Your task to perform on an android device: Search for Mexican restaurants on Maps Image 0: 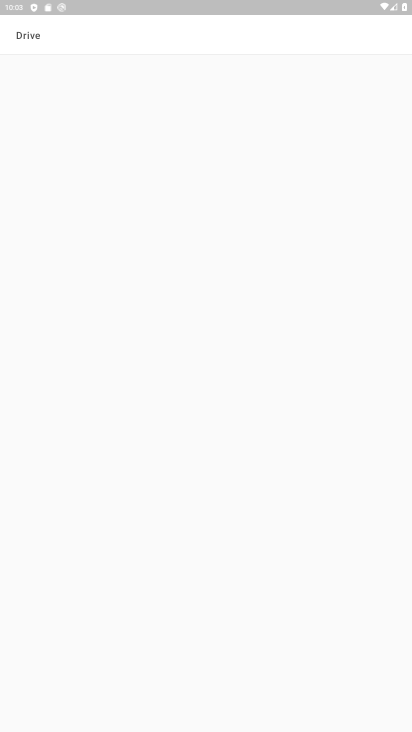
Step 0: press home button
Your task to perform on an android device: Search for Mexican restaurants on Maps Image 1: 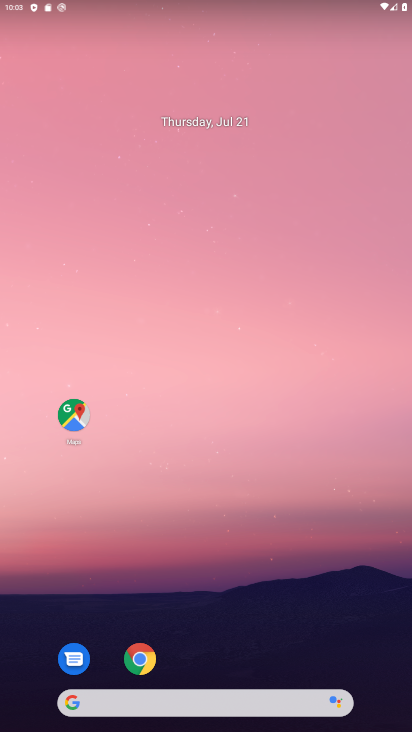
Step 1: drag from (284, 622) to (233, 99)
Your task to perform on an android device: Search for Mexican restaurants on Maps Image 2: 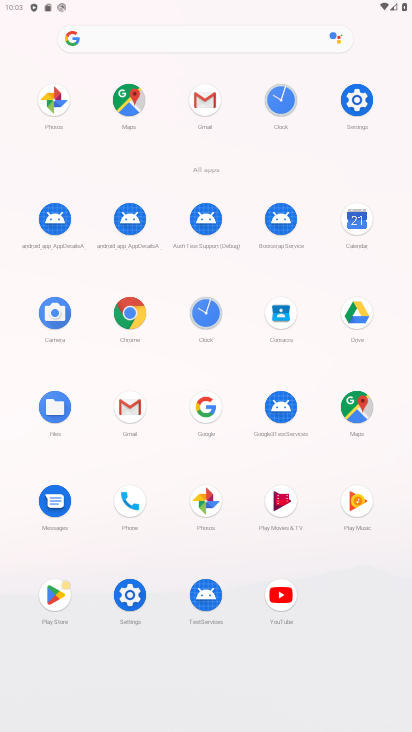
Step 2: click (350, 411)
Your task to perform on an android device: Search for Mexican restaurants on Maps Image 3: 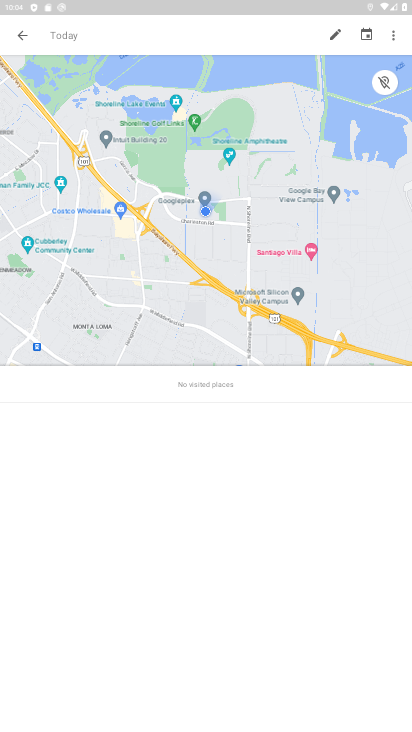
Step 3: click (53, 35)
Your task to perform on an android device: Search for Mexican restaurants on Maps Image 4: 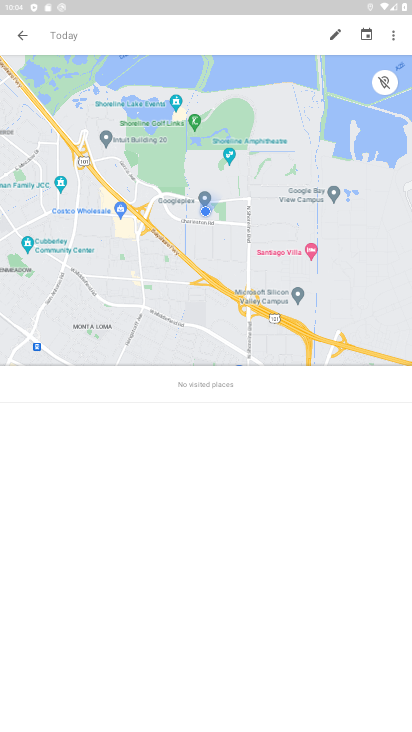
Step 4: click (26, 30)
Your task to perform on an android device: Search for Mexican restaurants on Maps Image 5: 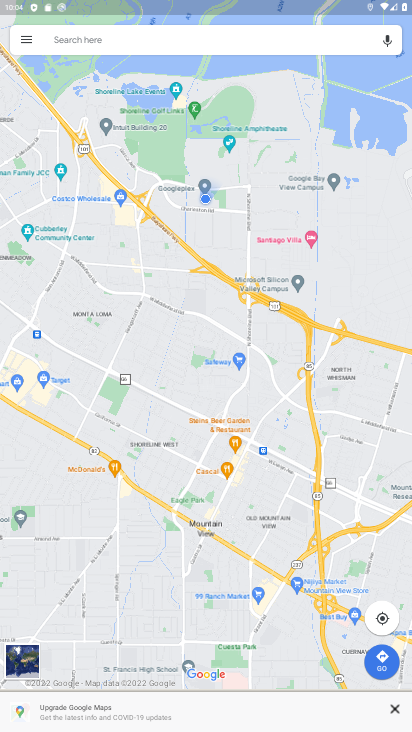
Step 5: click (176, 43)
Your task to perform on an android device: Search for Mexican restaurants on Maps Image 6: 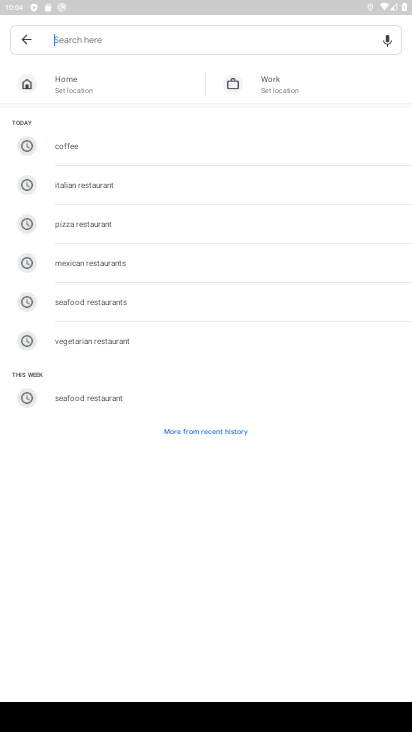
Step 6: click (116, 260)
Your task to perform on an android device: Search for Mexican restaurants on Maps Image 7: 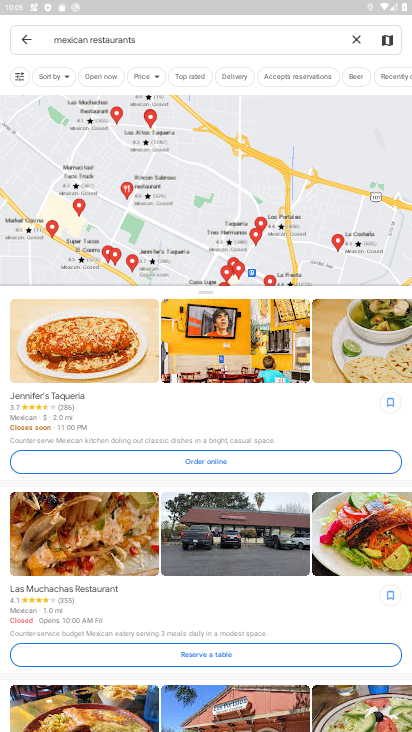
Step 7: task complete